Your task to perform on an android device: make emails show in primary in the gmail app Image 0: 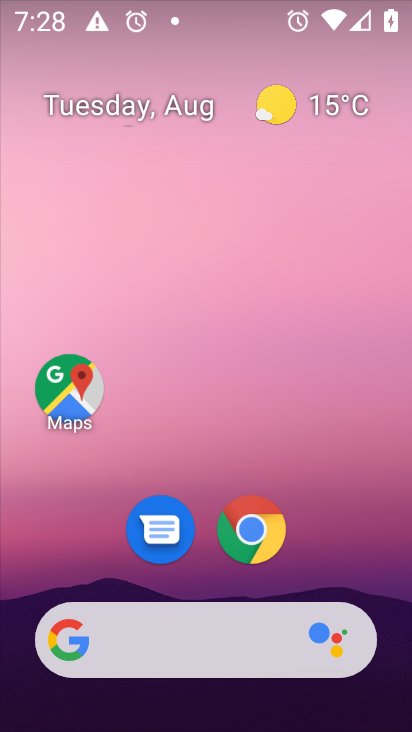
Step 0: drag from (239, 479) to (251, 50)
Your task to perform on an android device: make emails show in primary in the gmail app Image 1: 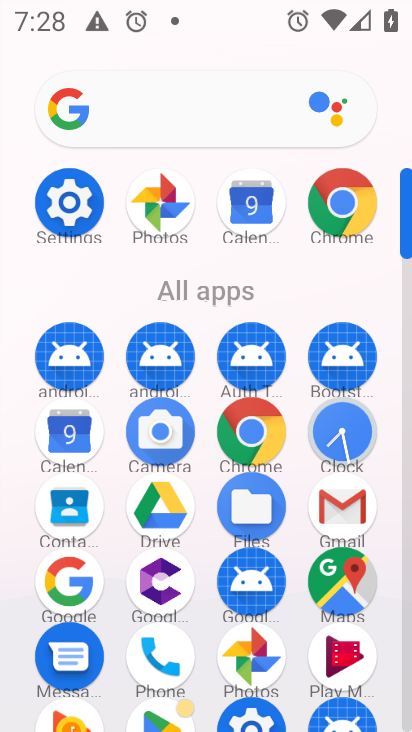
Step 1: click (339, 507)
Your task to perform on an android device: make emails show in primary in the gmail app Image 2: 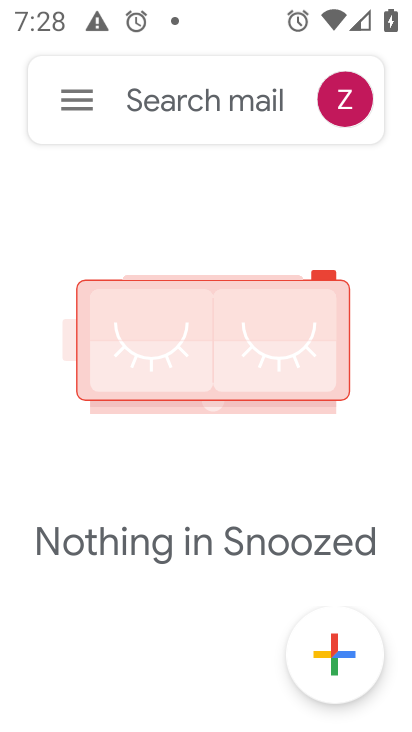
Step 2: click (69, 98)
Your task to perform on an android device: make emails show in primary in the gmail app Image 3: 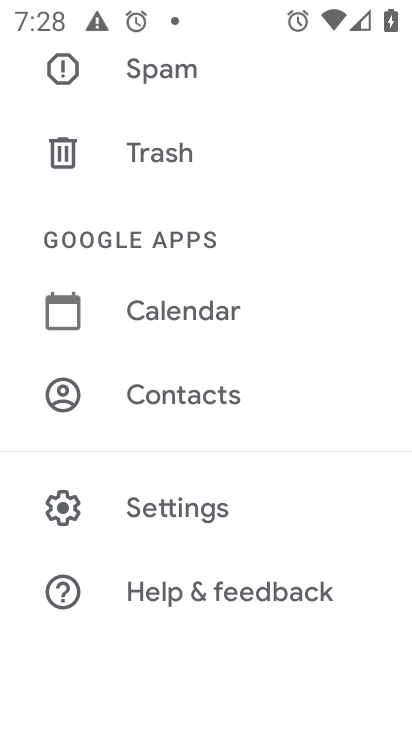
Step 3: click (182, 514)
Your task to perform on an android device: make emails show in primary in the gmail app Image 4: 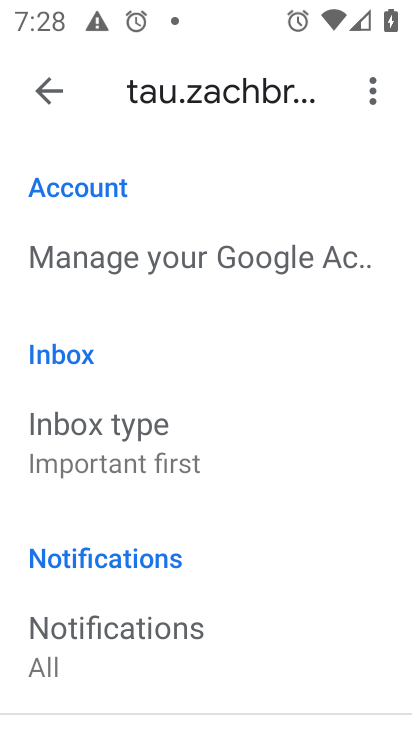
Step 4: task complete